Your task to perform on an android device: check storage Image 0: 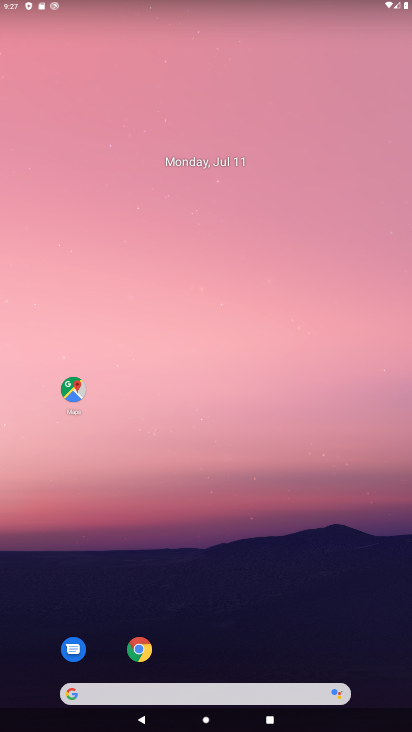
Step 0: drag from (203, 664) to (256, 15)
Your task to perform on an android device: check storage Image 1: 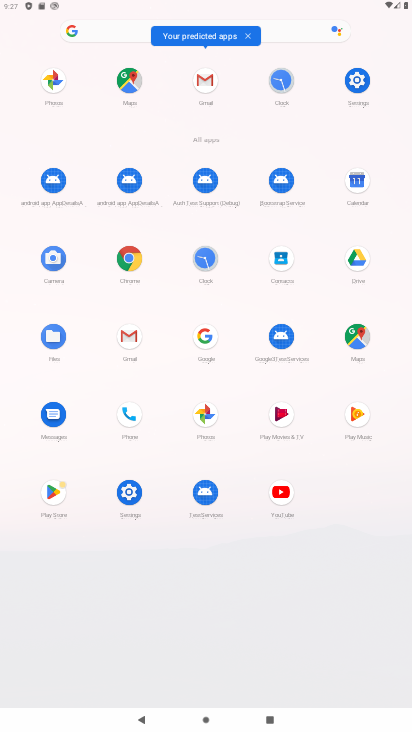
Step 1: click (122, 499)
Your task to perform on an android device: check storage Image 2: 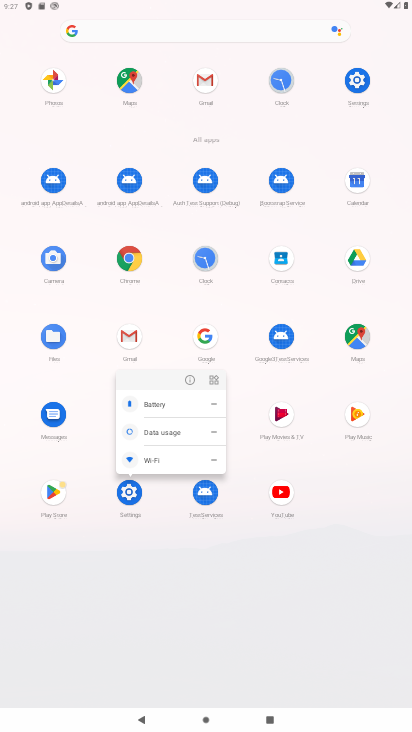
Step 2: click (129, 502)
Your task to perform on an android device: check storage Image 3: 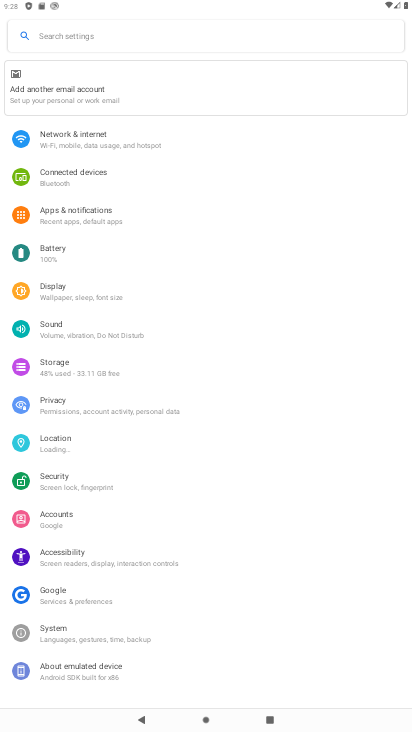
Step 3: click (81, 368)
Your task to perform on an android device: check storage Image 4: 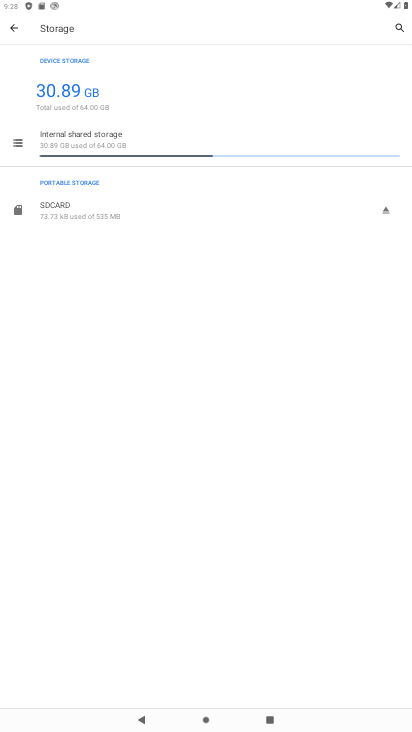
Step 4: click (95, 141)
Your task to perform on an android device: check storage Image 5: 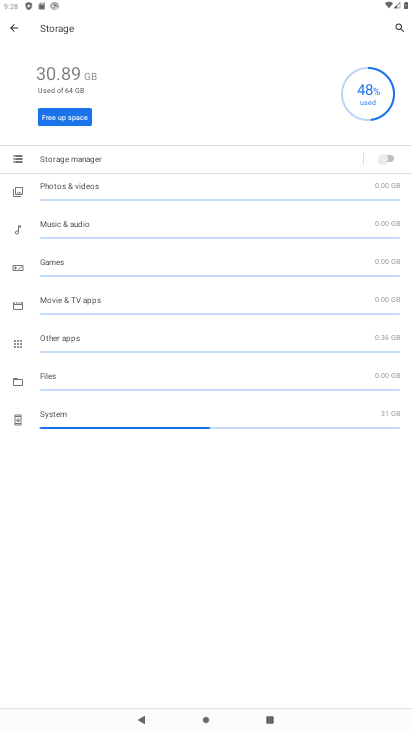
Step 5: task complete